Your task to perform on an android device: turn off location Image 0: 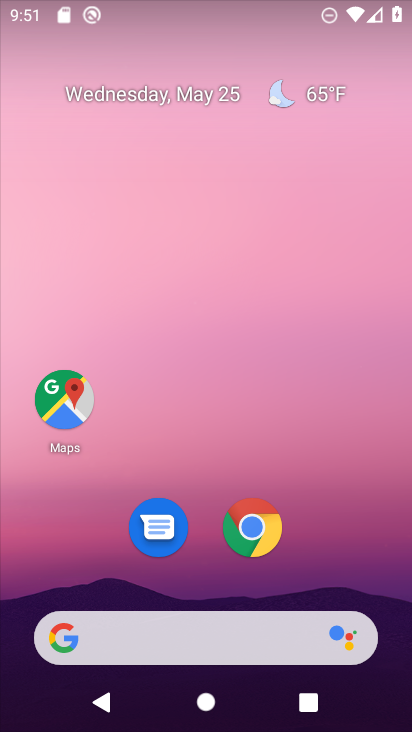
Step 0: drag from (344, 538) to (272, 124)
Your task to perform on an android device: turn off location Image 1: 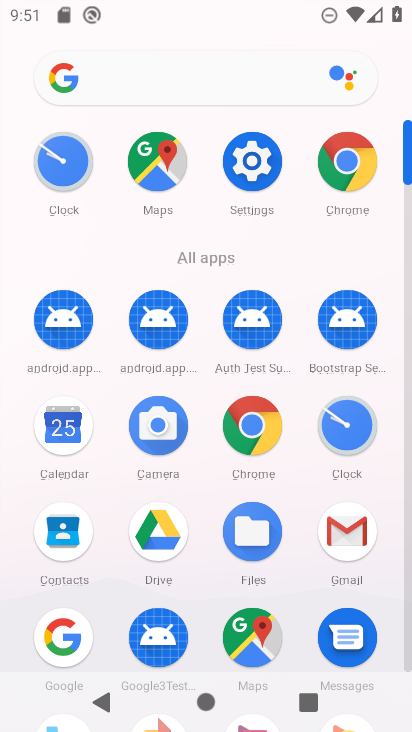
Step 1: click (254, 163)
Your task to perform on an android device: turn off location Image 2: 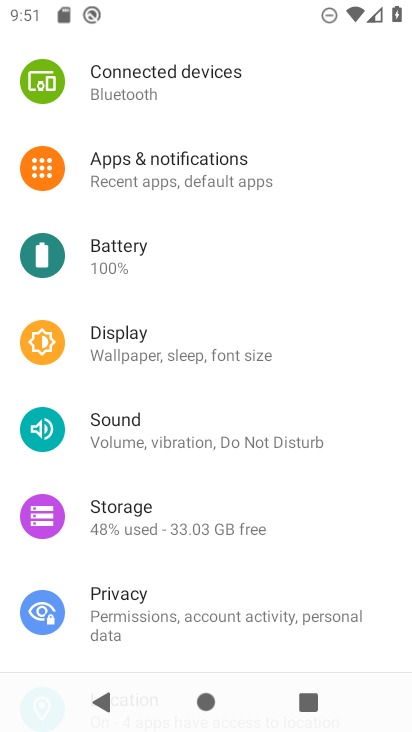
Step 2: drag from (224, 487) to (229, 300)
Your task to perform on an android device: turn off location Image 3: 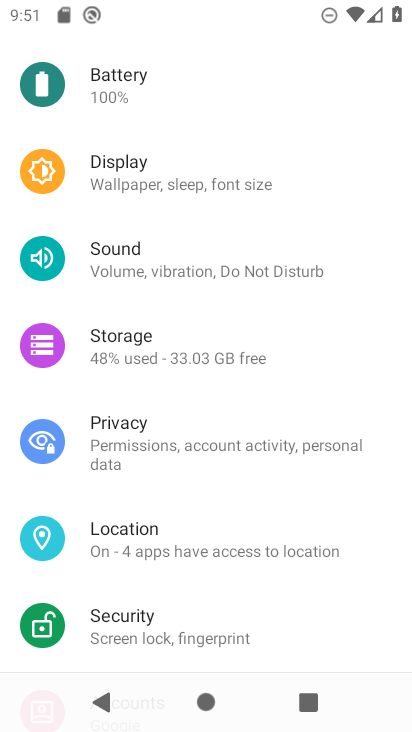
Step 3: click (181, 543)
Your task to perform on an android device: turn off location Image 4: 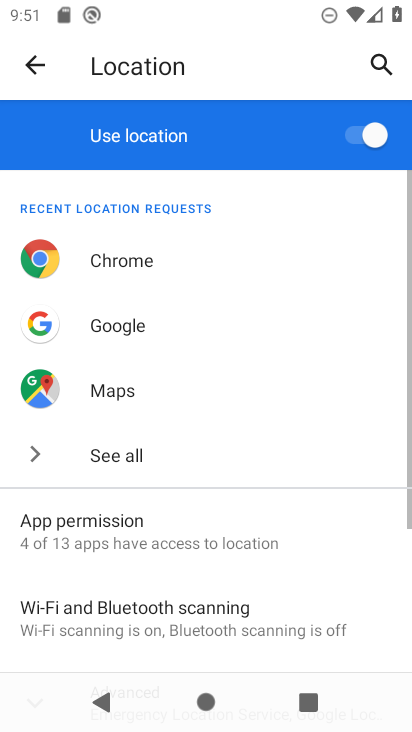
Step 4: click (354, 140)
Your task to perform on an android device: turn off location Image 5: 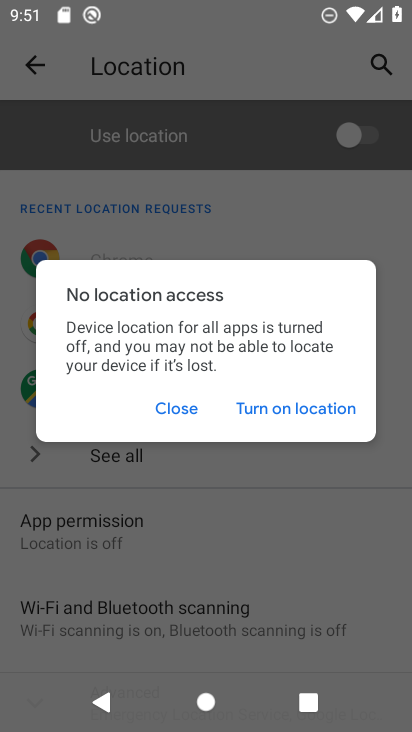
Step 5: click (165, 410)
Your task to perform on an android device: turn off location Image 6: 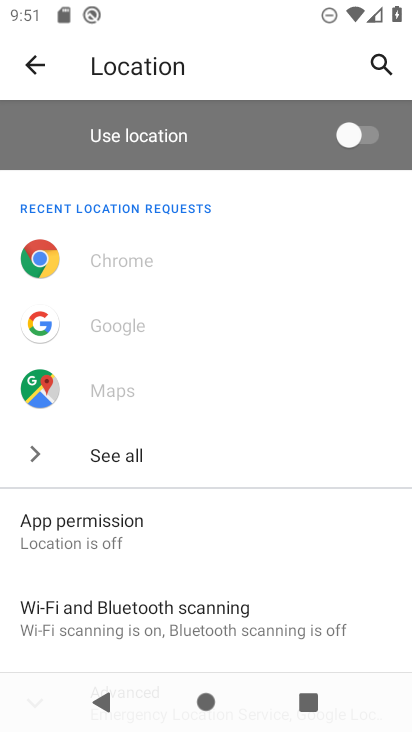
Step 6: task complete